Your task to perform on an android device: Look up the best rated kitchen knives on Amazon. Image 0: 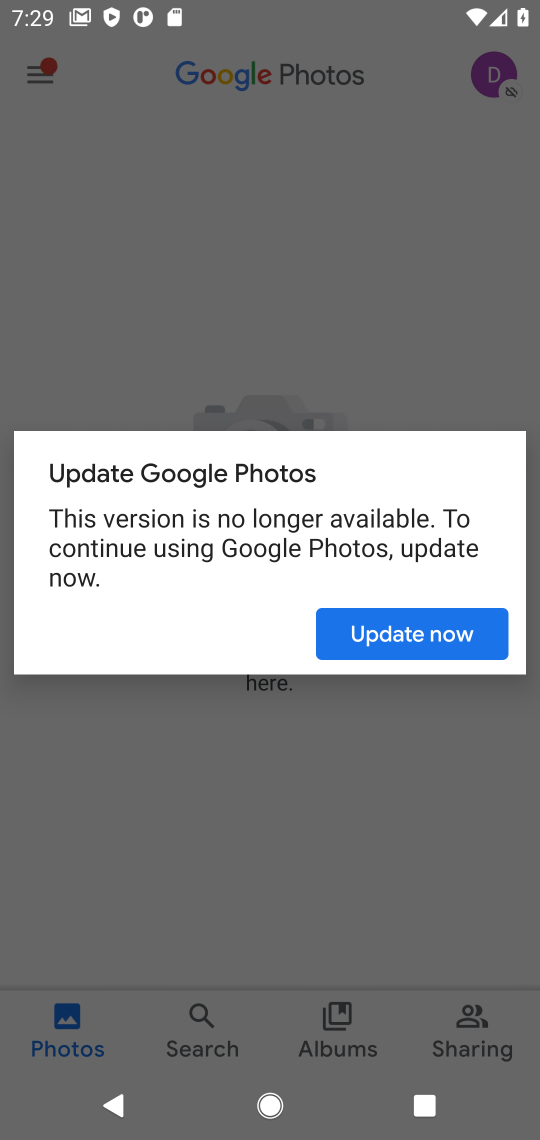
Step 0: press home button
Your task to perform on an android device: Look up the best rated kitchen knives on Amazon. Image 1: 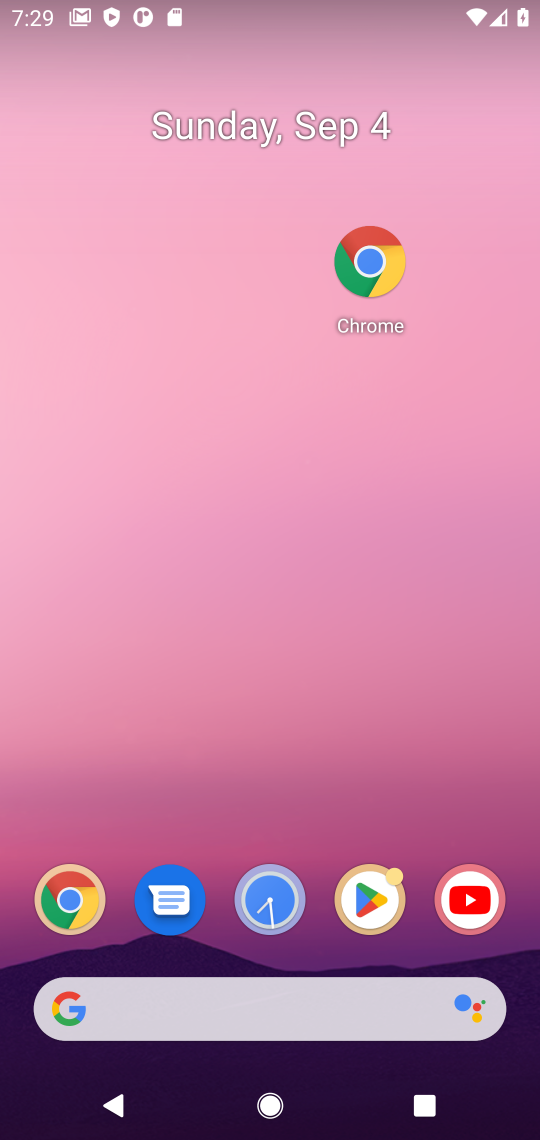
Step 1: click (374, 267)
Your task to perform on an android device: Look up the best rated kitchen knives on Amazon. Image 2: 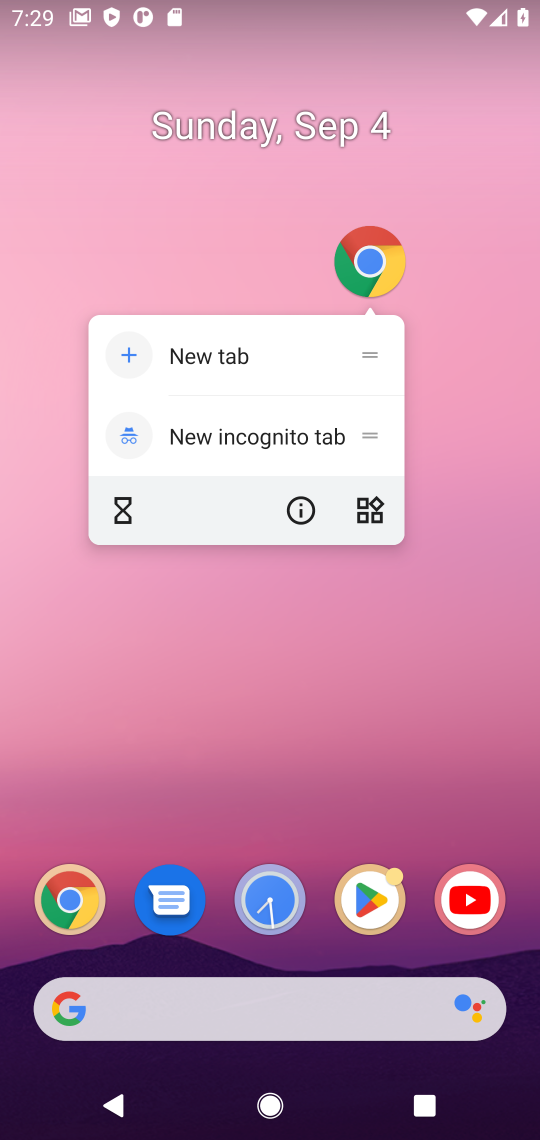
Step 2: click (374, 267)
Your task to perform on an android device: Look up the best rated kitchen knives on Amazon. Image 3: 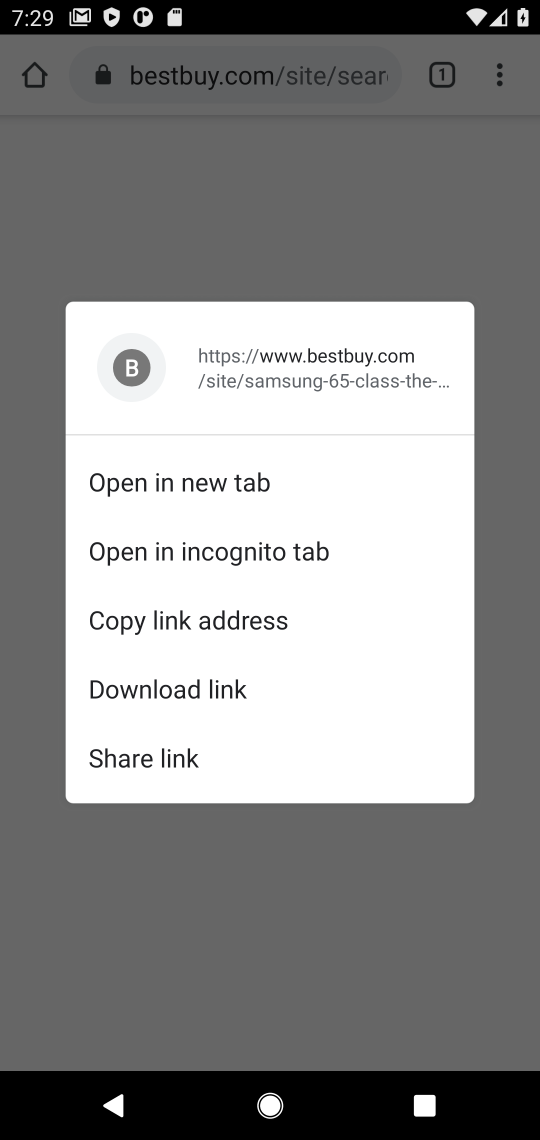
Step 3: click (380, 225)
Your task to perform on an android device: Look up the best rated kitchen knives on Amazon. Image 4: 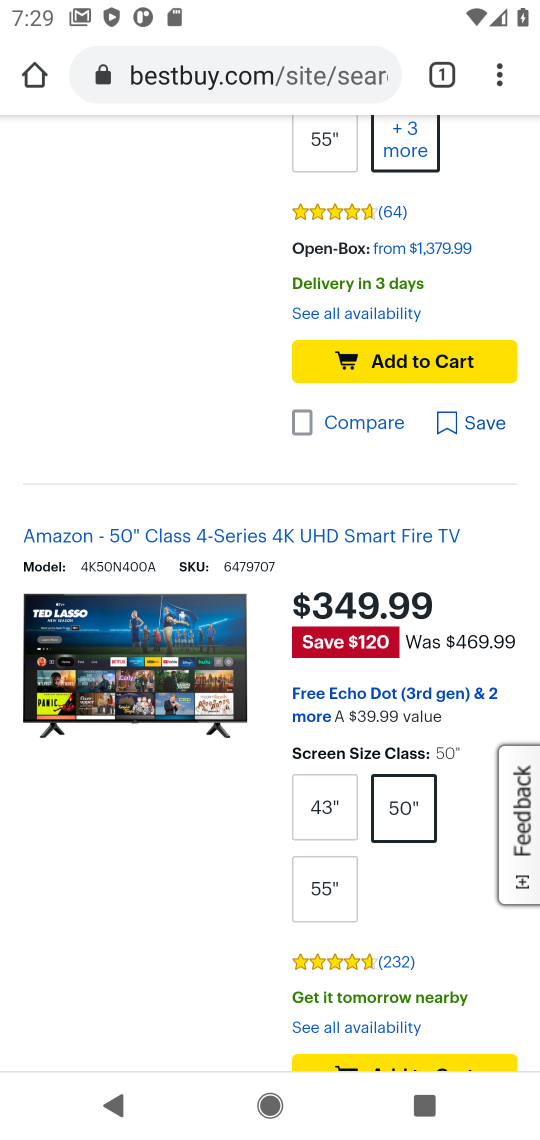
Step 4: click (445, 89)
Your task to perform on an android device: Look up the best rated kitchen knives on Amazon. Image 5: 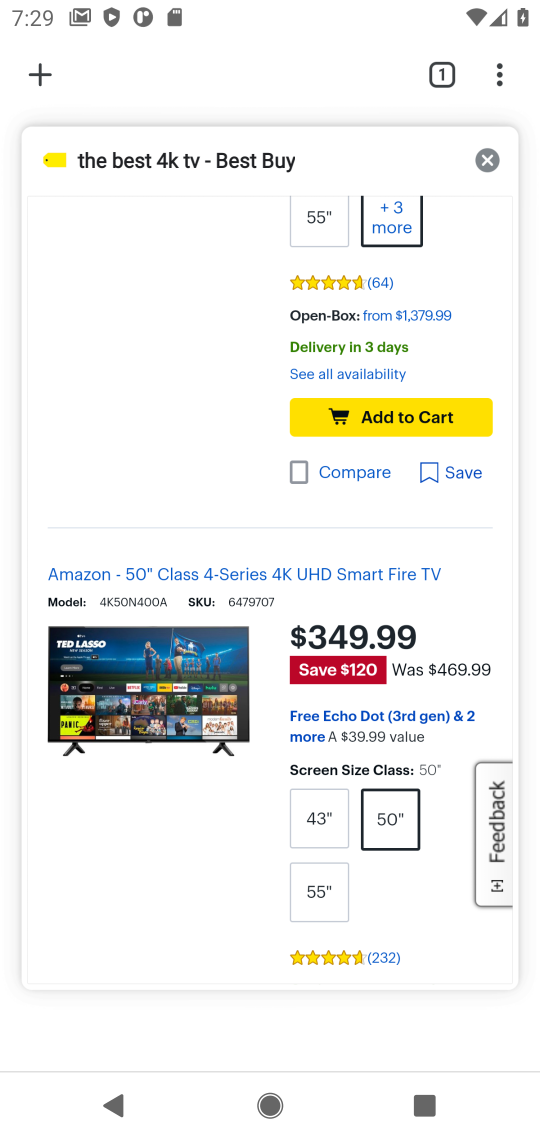
Step 5: click (489, 151)
Your task to perform on an android device: Look up the best rated kitchen knives on Amazon. Image 6: 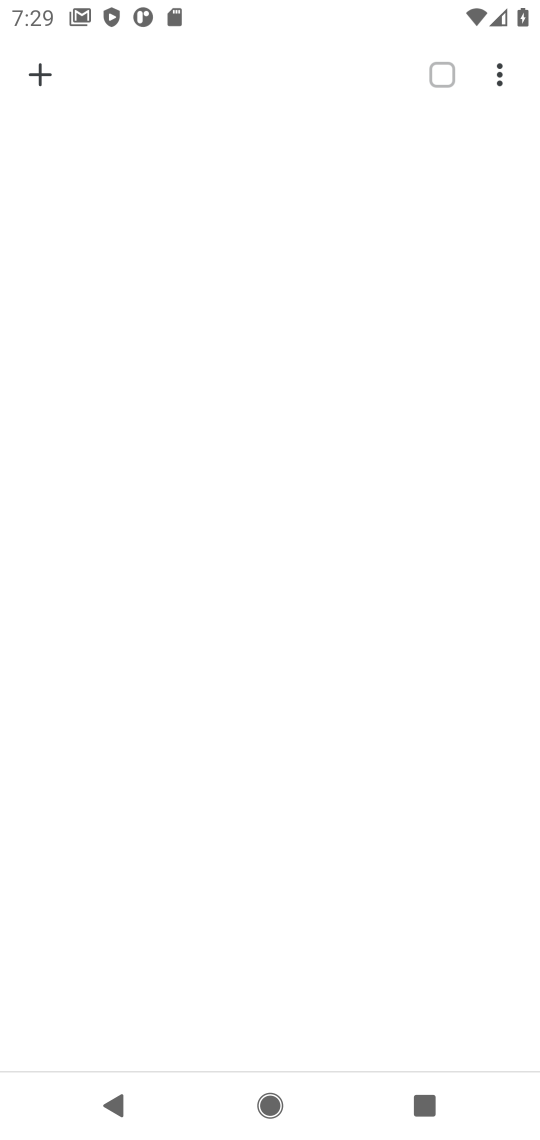
Step 6: click (47, 78)
Your task to perform on an android device: Look up the best rated kitchen knives on Amazon. Image 7: 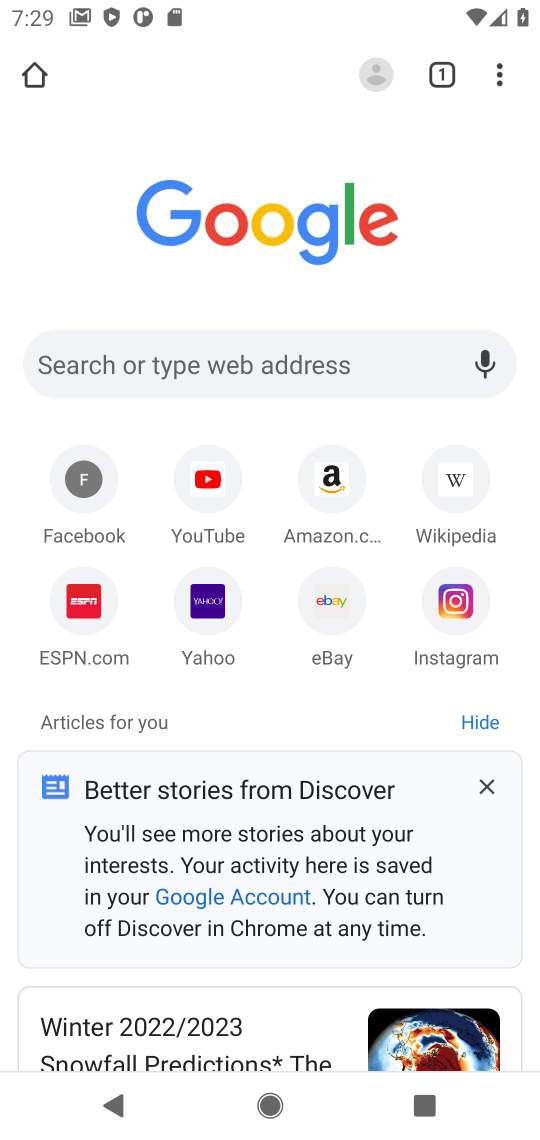
Step 7: click (331, 488)
Your task to perform on an android device: Look up the best rated kitchen knives on Amazon. Image 8: 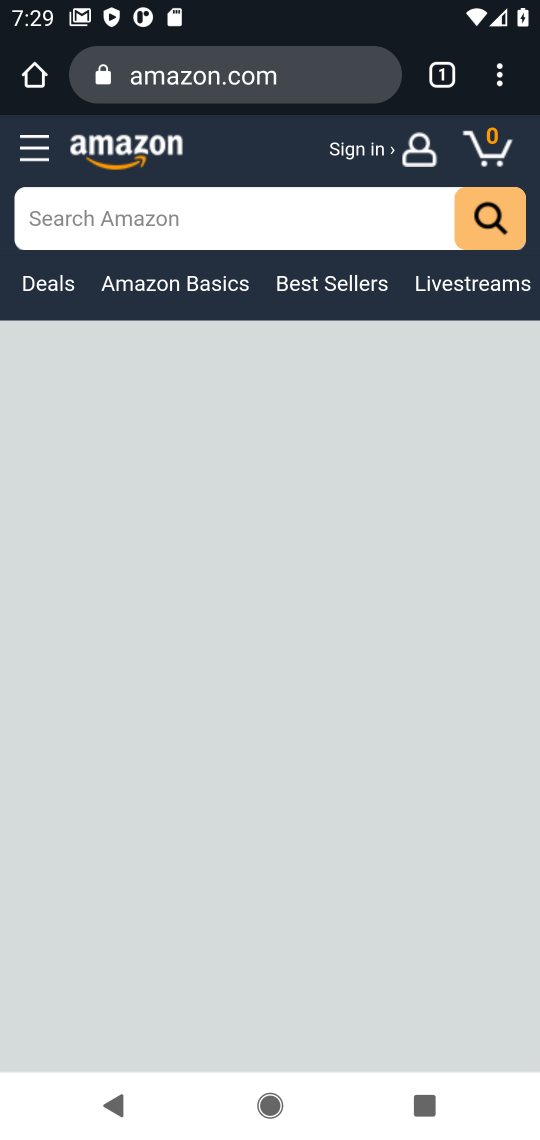
Step 8: click (213, 222)
Your task to perform on an android device: Look up the best rated kitchen knives on Amazon. Image 9: 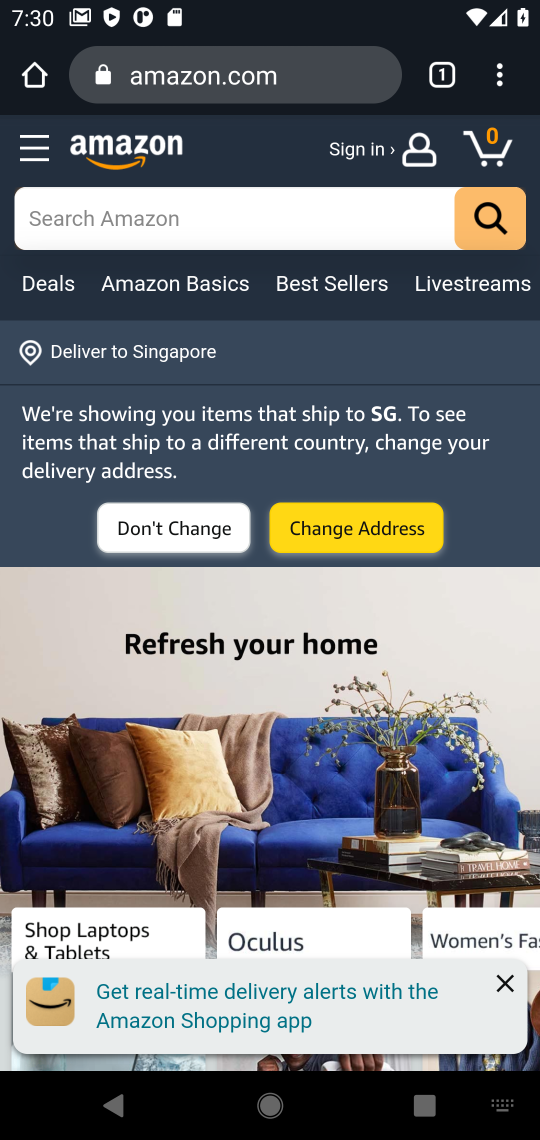
Step 9: type "kitchen knives"
Your task to perform on an android device: Look up the best rated kitchen knives on Amazon. Image 10: 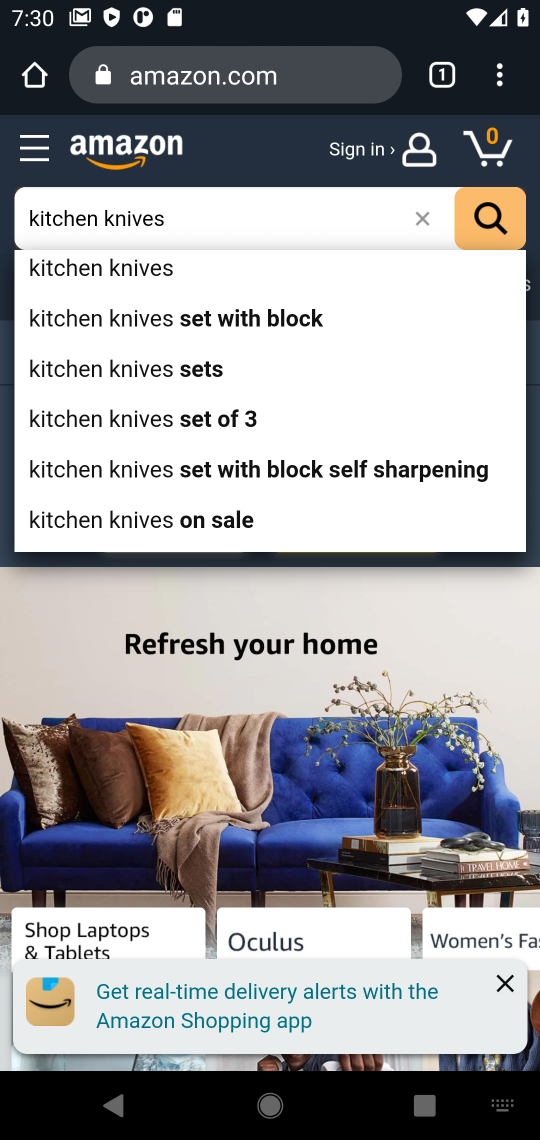
Step 10: click (150, 257)
Your task to perform on an android device: Look up the best rated kitchen knives on Amazon. Image 11: 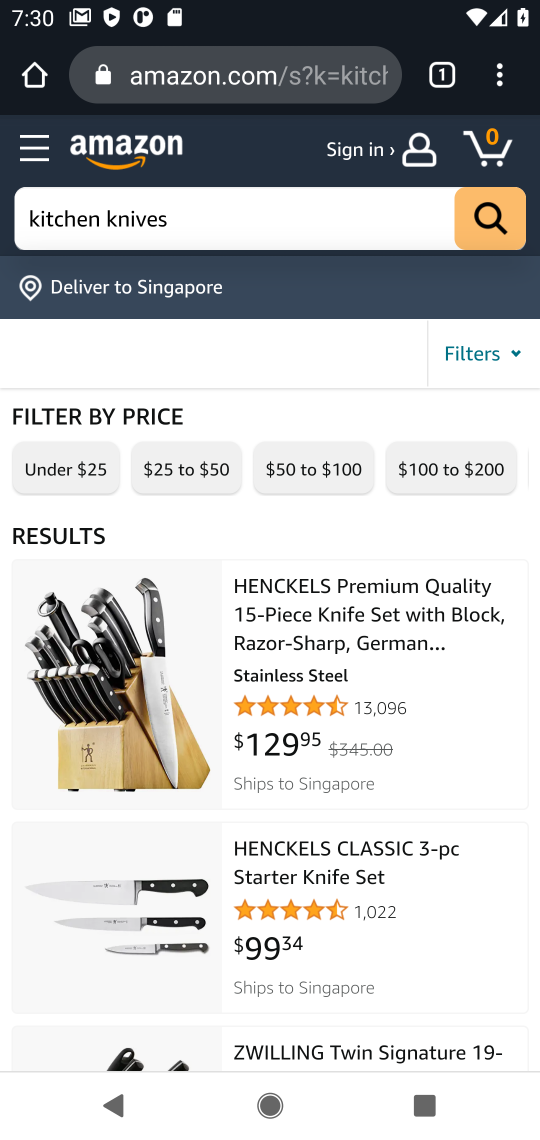
Step 11: click (468, 346)
Your task to perform on an android device: Look up the best rated kitchen knives on Amazon. Image 12: 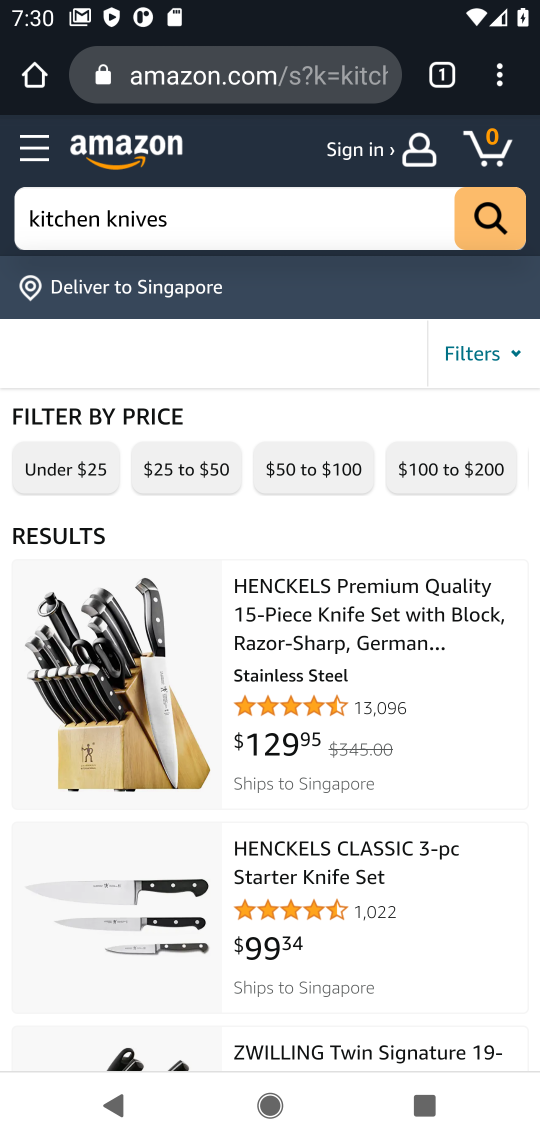
Step 12: click (499, 346)
Your task to perform on an android device: Look up the best rated kitchen knives on Amazon. Image 13: 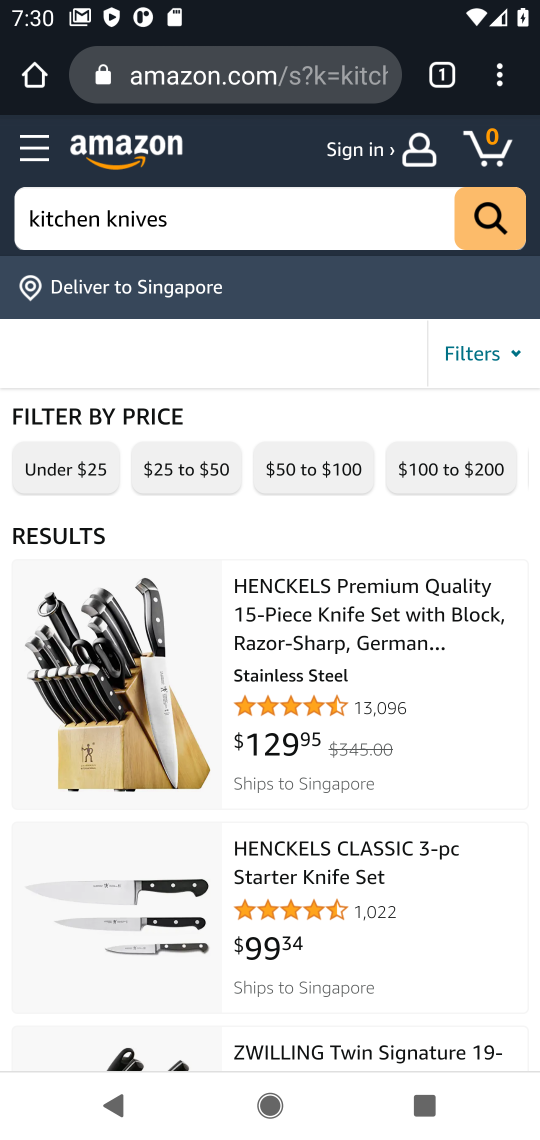
Step 13: click (513, 348)
Your task to perform on an android device: Look up the best rated kitchen knives on Amazon. Image 14: 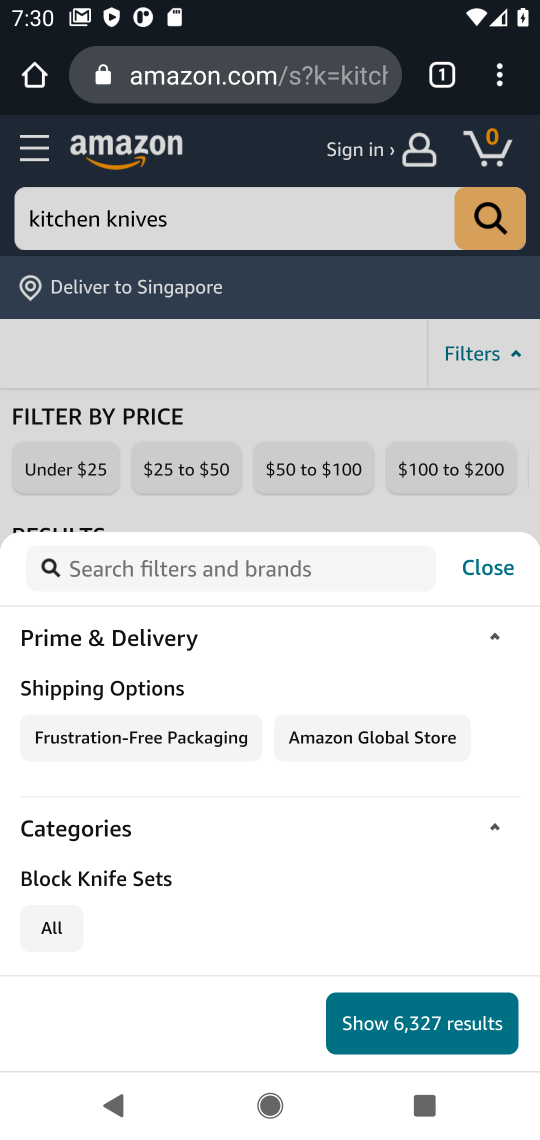
Step 14: drag from (385, 875) to (379, 647)
Your task to perform on an android device: Look up the best rated kitchen knives on Amazon. Image 15: 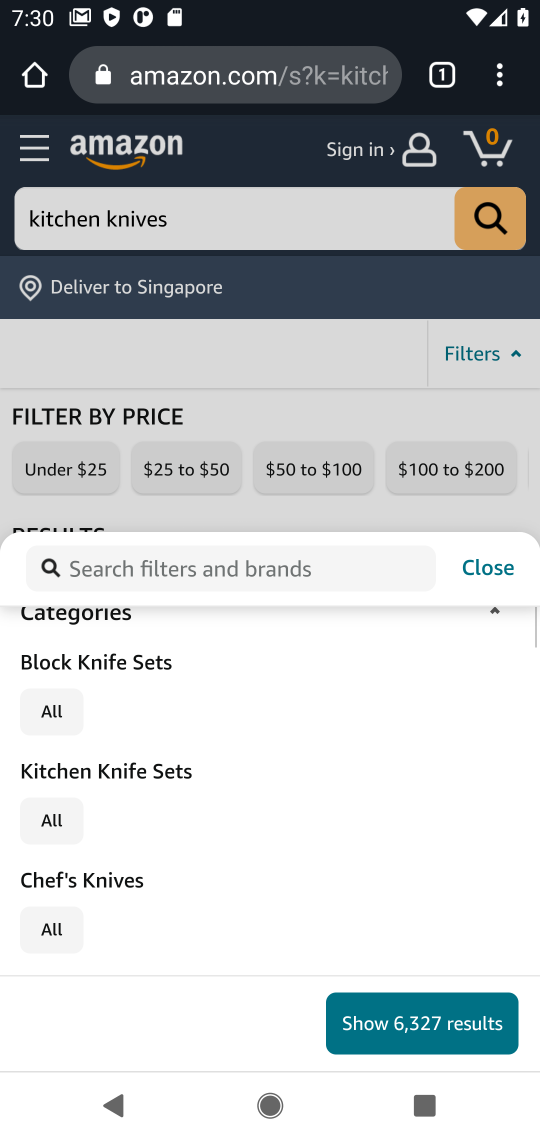
Step 15: drag from (353, 895) to (307, 604)
Your task to perform on an android device: Look up the best rated kitchen knives on Amazon. Image 16: 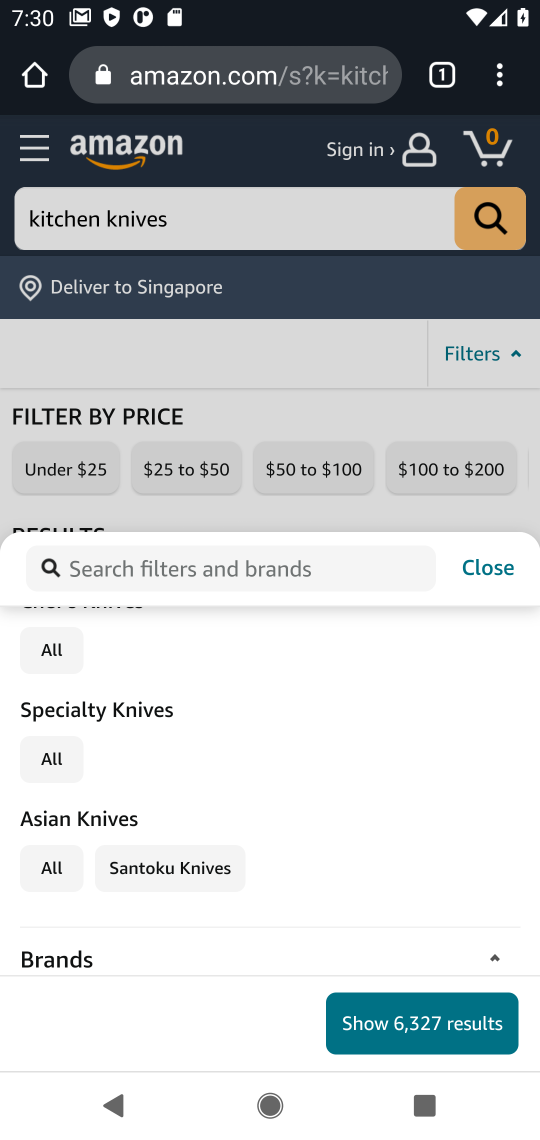
Step 16: drag from (250, 787) to (199, 596)
Your task to perform on an android device: Look up the best rated kitchen knives on Amazon. Image 17: 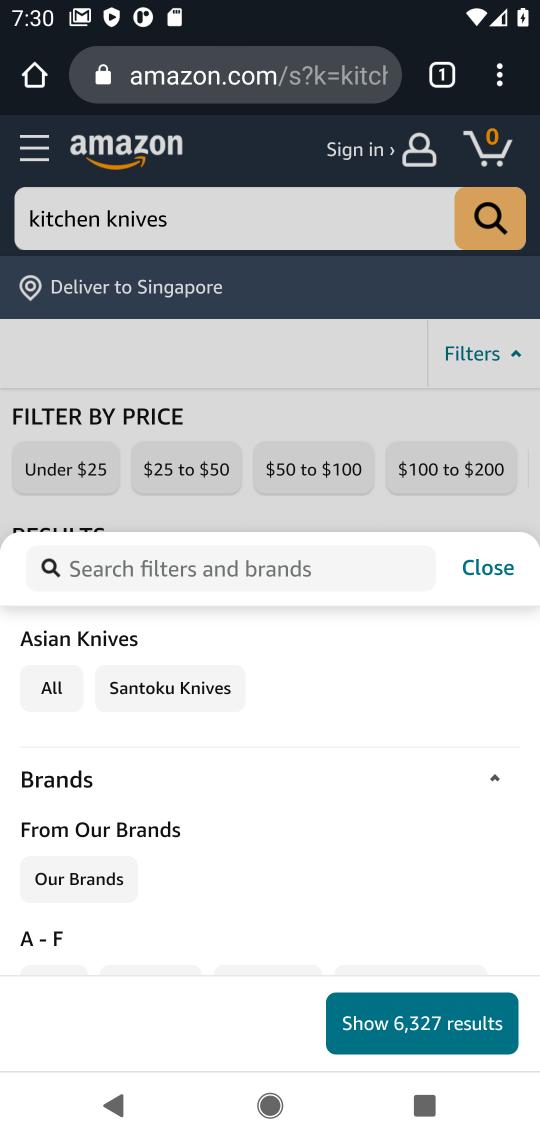
Step 17: drag from (242, 908) to (263, 513)
Your task to perform on an android device: Look up the best rated kitchen knives on Amazon. Image 18: 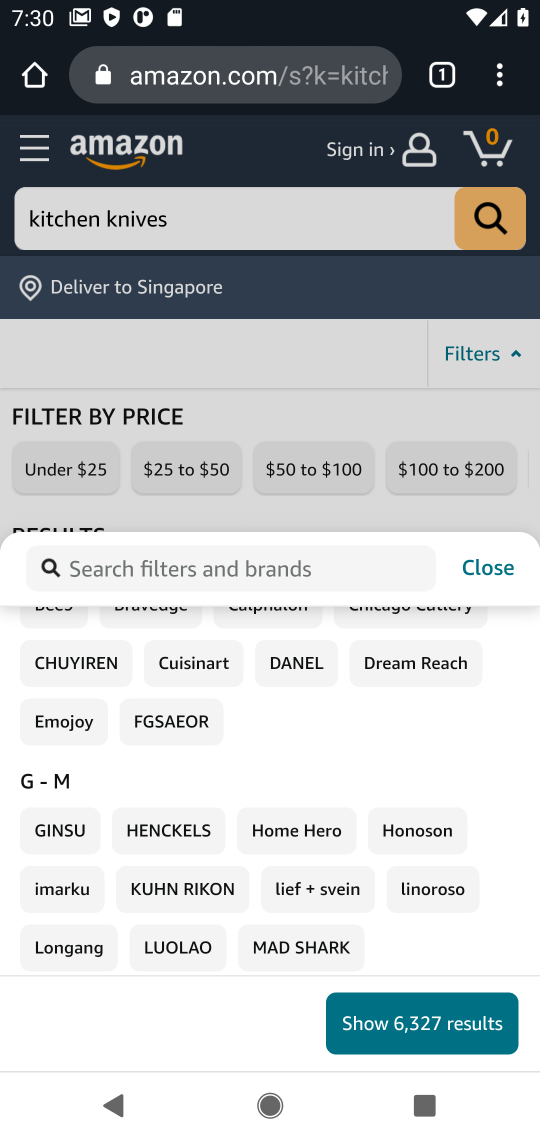
Step 18: drag from (250, 856) to (185, 590)
Your task to perform on an android device: Look up the best rated kitchen knives on Amazon. Image 19: 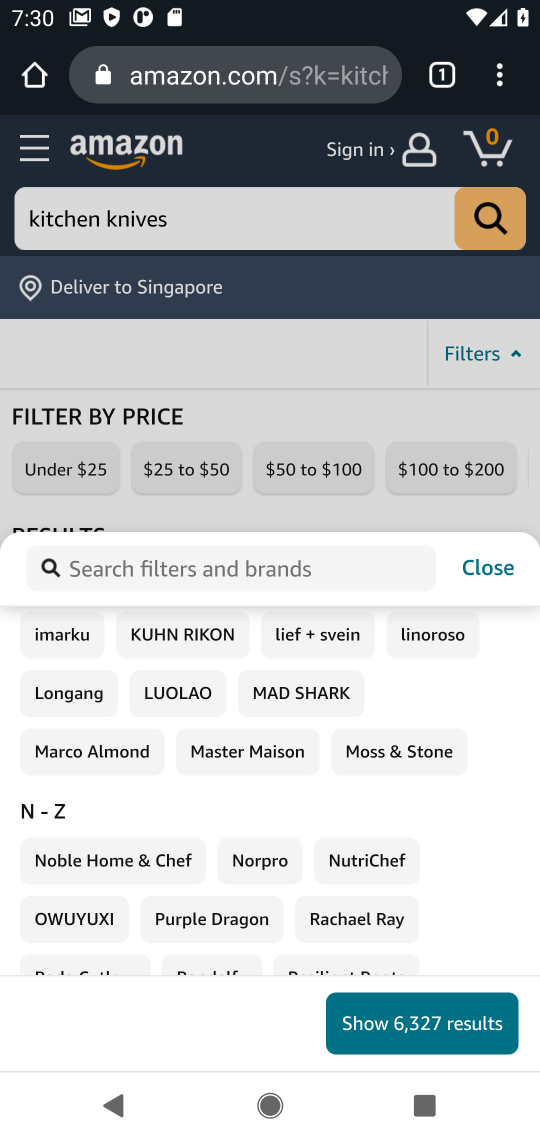
Step 19: drag from (232, 943) to (152, 597)
Your task to perform on an android device: Look up the best rated kitchen knives on Amazon. Image 20: 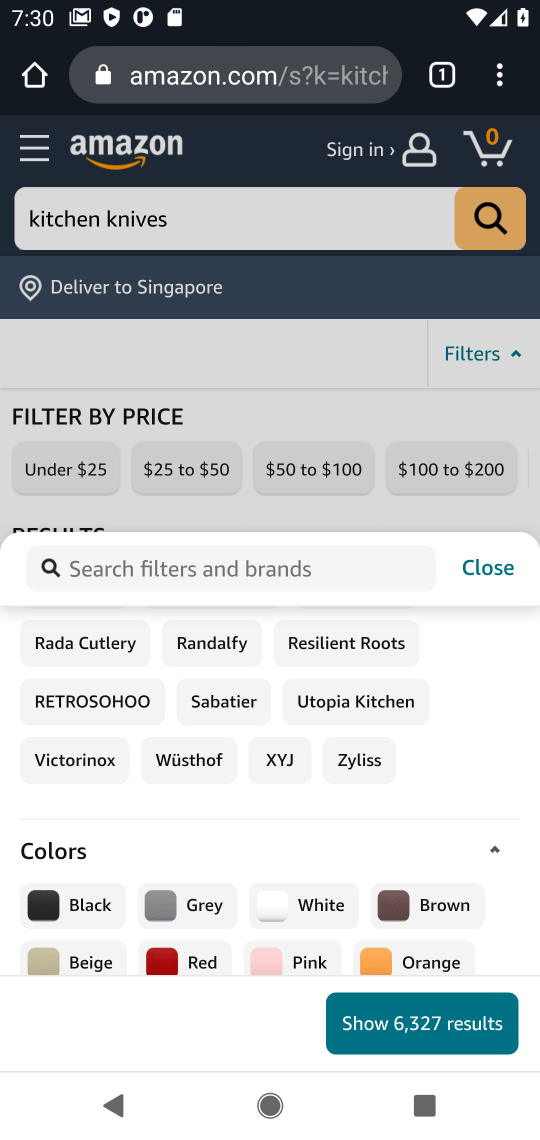
Step 20: drag from (187, 834) to (126, 526)
Your task to perform on an android device: Look up the best rated kitchen knives on Amazon. Image 21: 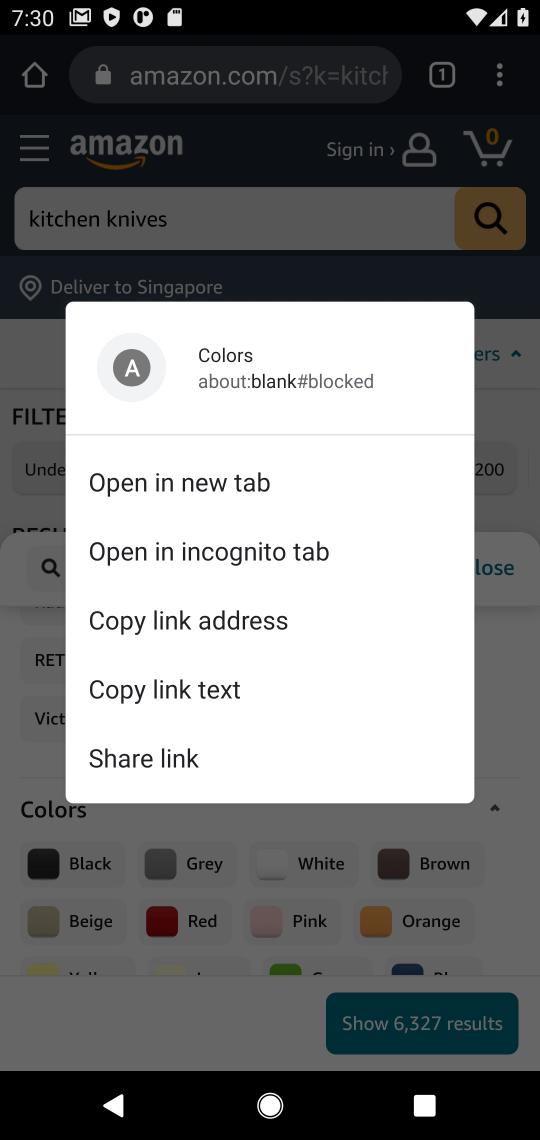
Step 21: click (533, 873)
Your task to perform on an android device: Look up the best rated kitchen knives on Amazon. Image 22: 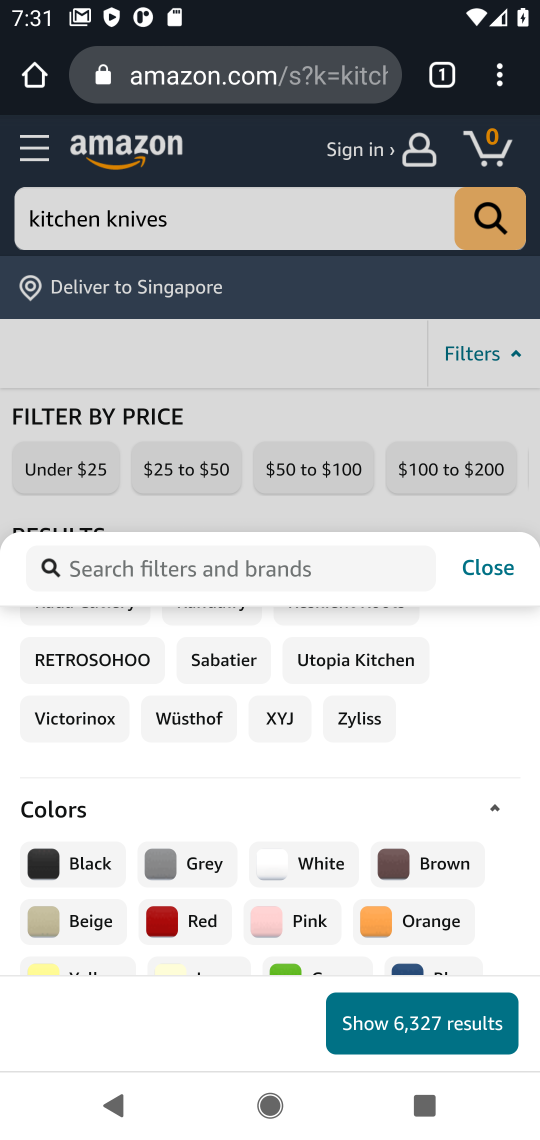
Step 22: drag from (463, 878) to (398, 606)
Your task to perform on an android device: Look up the best rated kitchen knives on Amazon. Image 23: 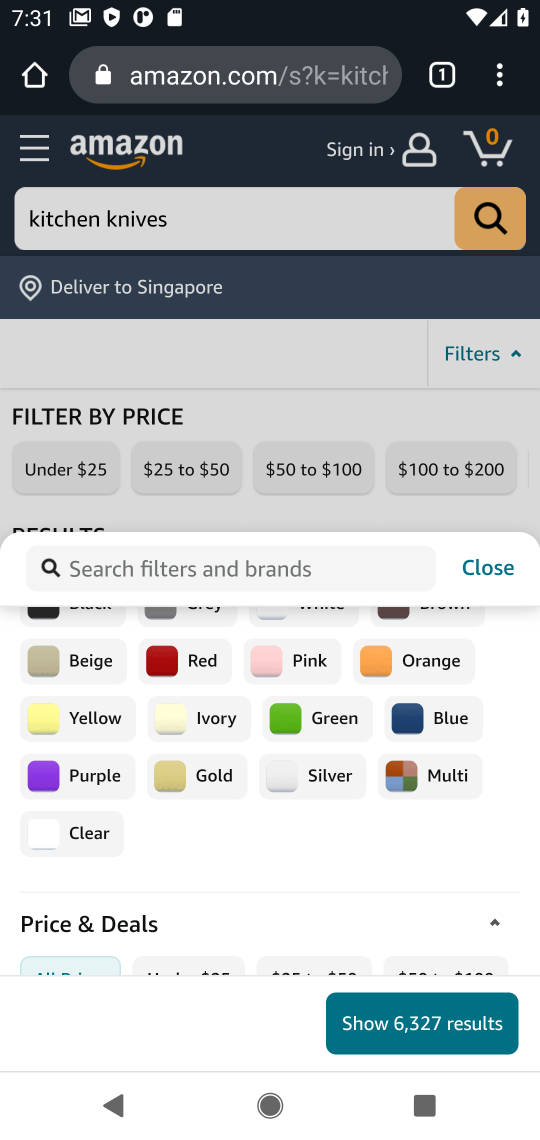
Step 23: drag from (275, 930) to (245, 539)
Your task to perform on an android device: Look up the best rated kitchen knives on Amazon. Image 24: 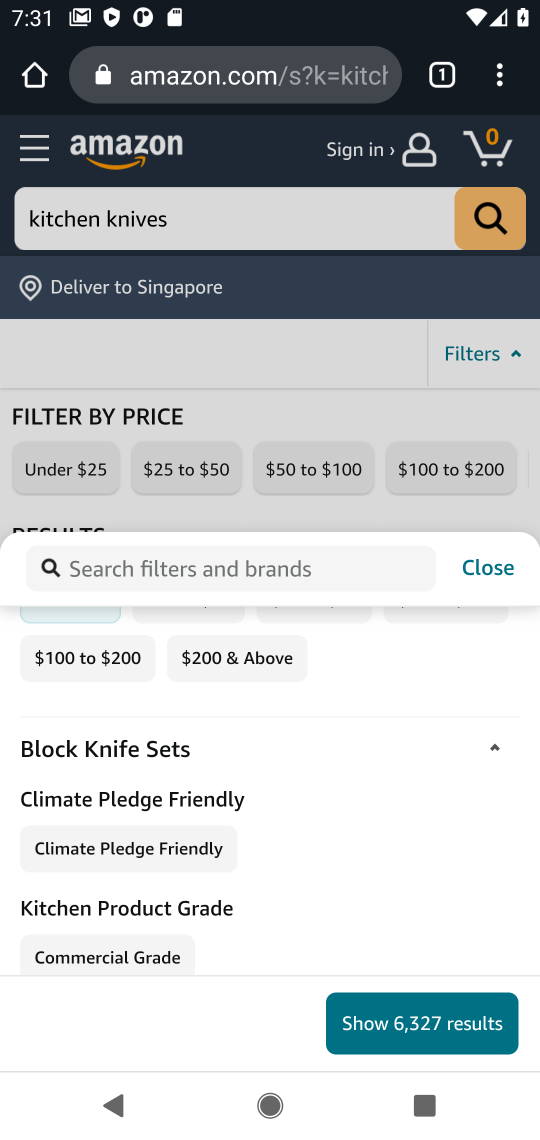
Step 24: drag from (277, 830) to (220, 525)
Your task to perform on an android device: Look up the best rated kitchen knives on Amazon. Image 25: 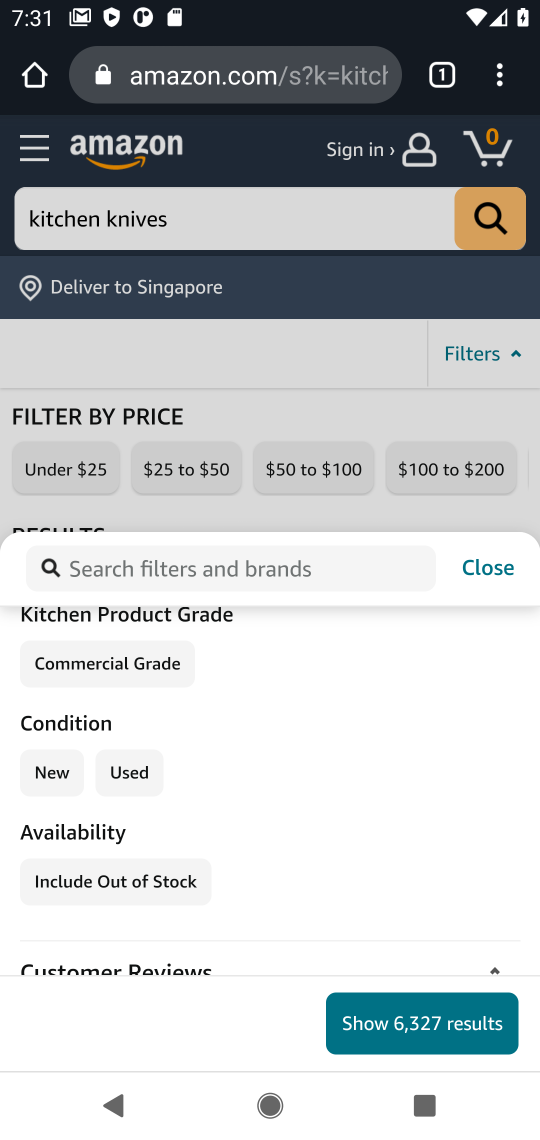
Step 25: drag from (253, 907) to (210, 524)
Your task to perform on an android device: Look up the best rated kitchen knives on Amazon. Image 26: 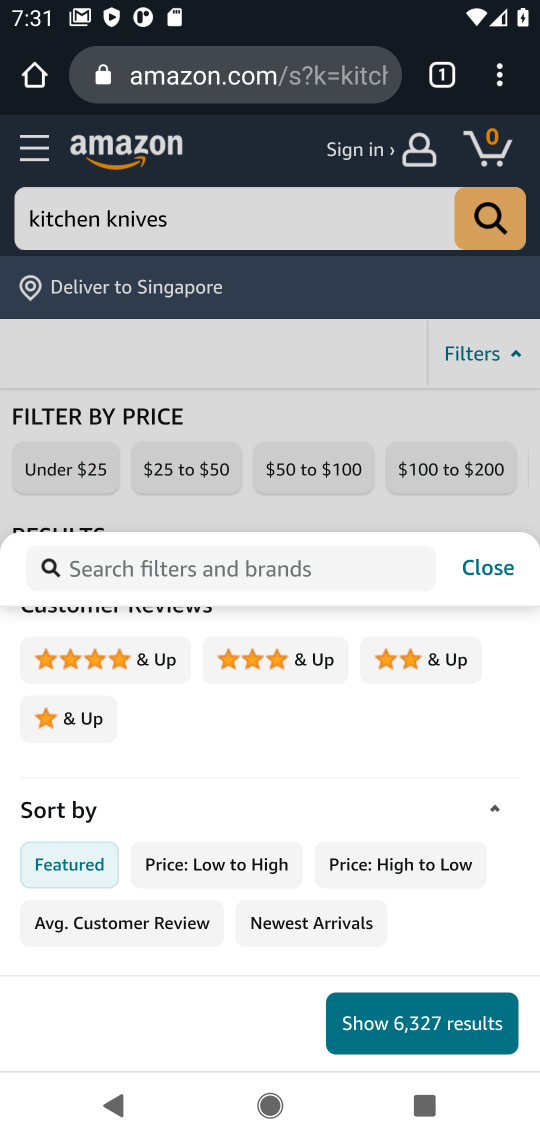
Step 26: click (123, 660)
Your task to perform on an android device: Look up the best rated kitchen knives on Amazon. Image 27: 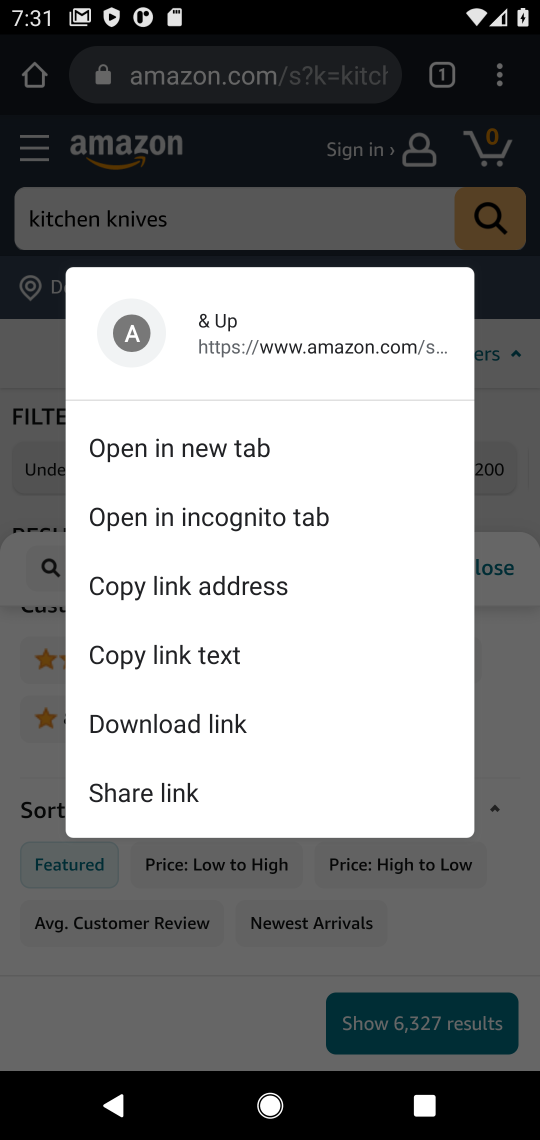
Step 27: click (490, 686)
Your task to perform on an android device: Look up the best rated kitchen knives on Amazon. Image 28: 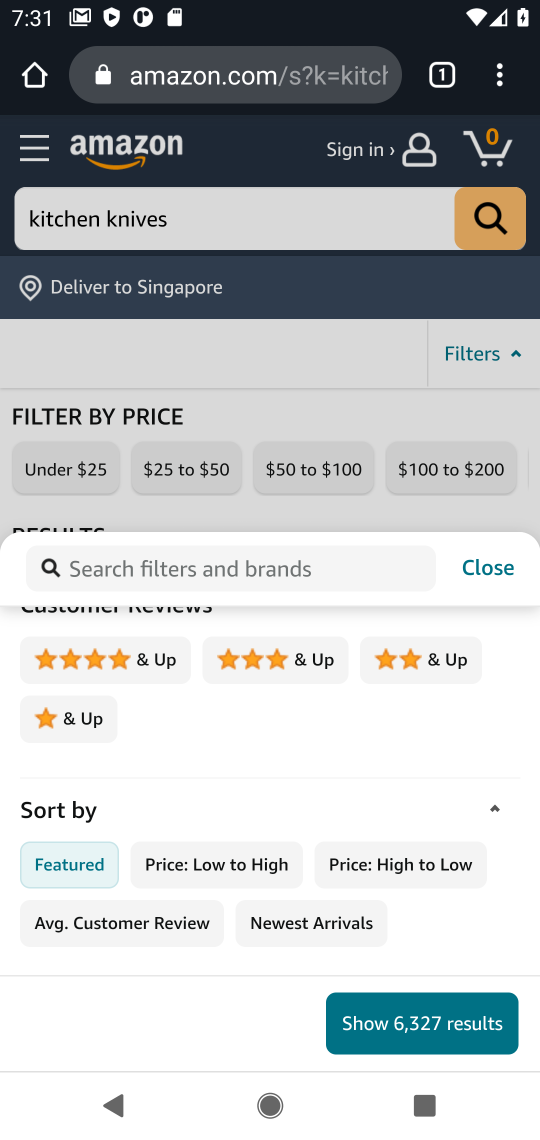
Step 28: click (91, 678)
Your task to perform on an android device: Look up the best rated kitchen knives on Amazon. Image 29: 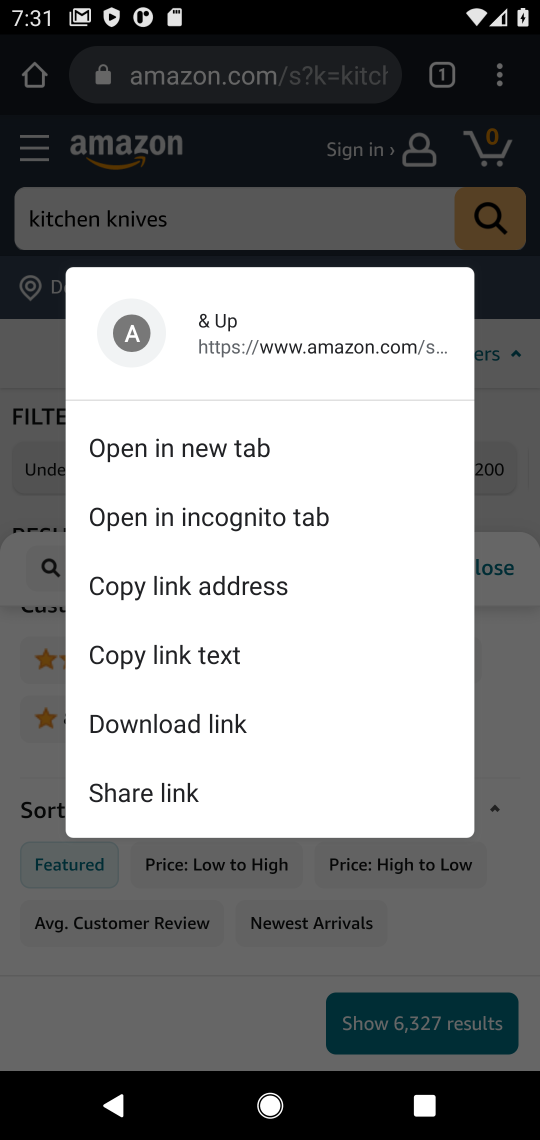
Step 29: click (357, 889)
Your task to perform on an android device: Look up the best rated kitchen knives on Amazon. Image 30: 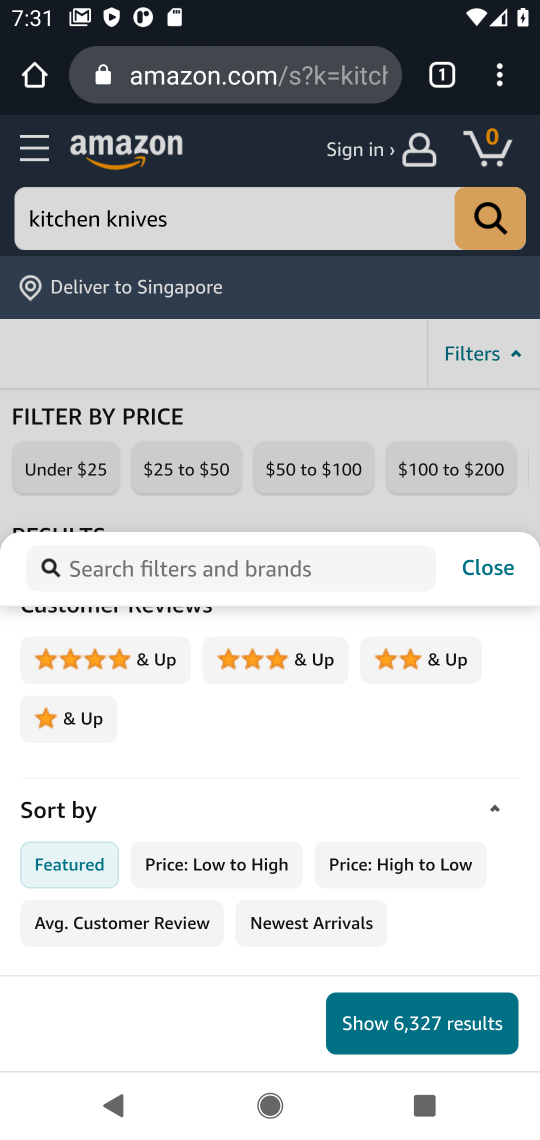
Step 30: click (179, 665)
Your task to perform on an android device: Look up the best rated kitchen knives on Amazon. Image 31: 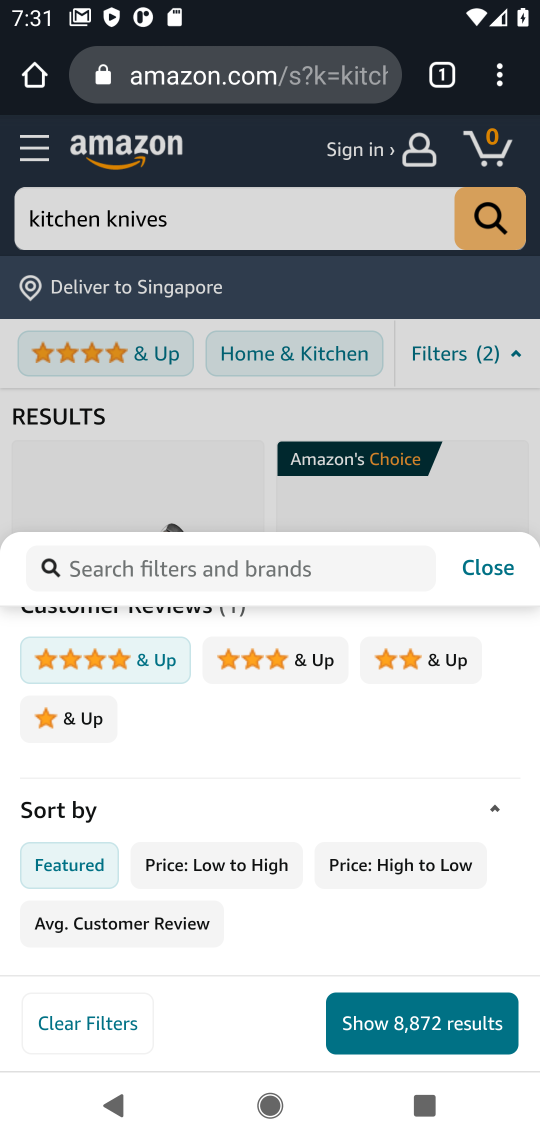
Step 31: click (199, 461)
Your task to perform on an android device: Look up the best rated kitchen knives on Amazon. Image 32: 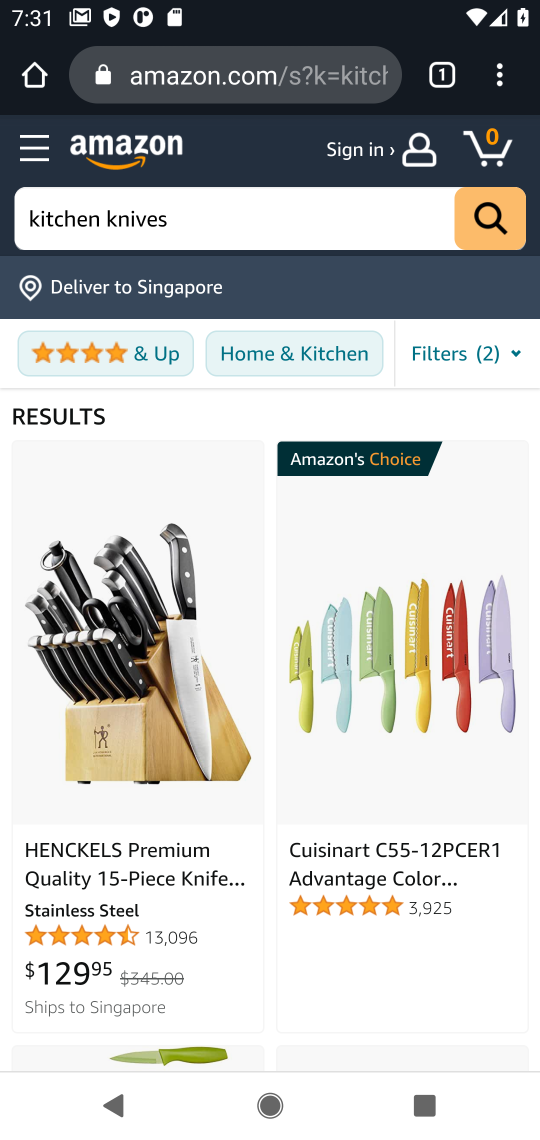
Step 32: task complete